Your task to perform on an android device: What's the weather going to be this weekend? Image 0: 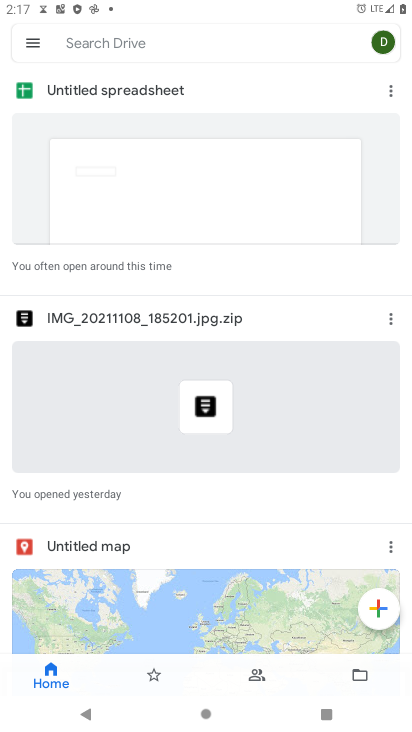
Step 0: press home button
Your task to perform on an android device: What's the weather going to be this weekend? Image 1: 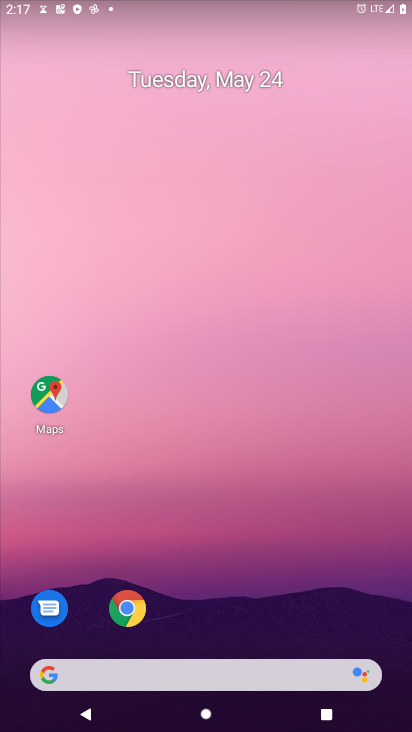
Step 1: drag from (268, 683) to (152, 103)
Your task to perform on an android device: What's the weather going to be this weekend? Image 2: 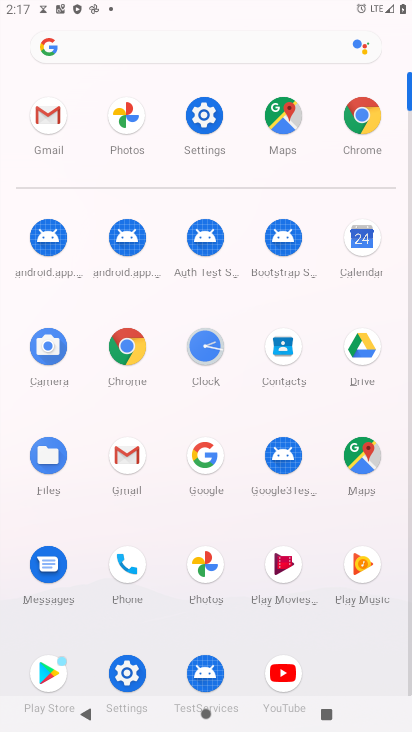
Step 2: click (163, 46)
Your task to perform on an android device: What's the weather going to be this weekend? Image 3: 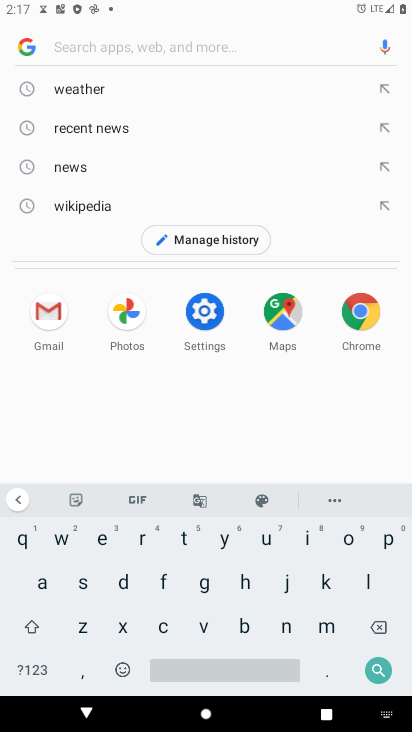
Step 3: click (122, 91)
Your task to perform on an android device: What's the weather going to be this weekend? Image 4: 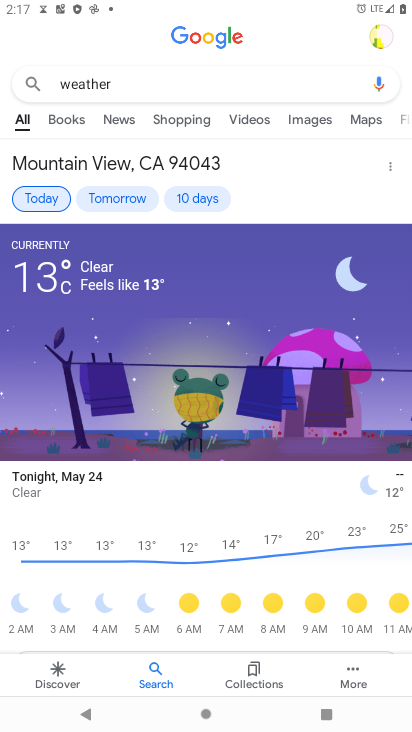
Step 4: click (182, 196)
Your task to perform on an android device: What's the weather going to be this weekend? Image 5: 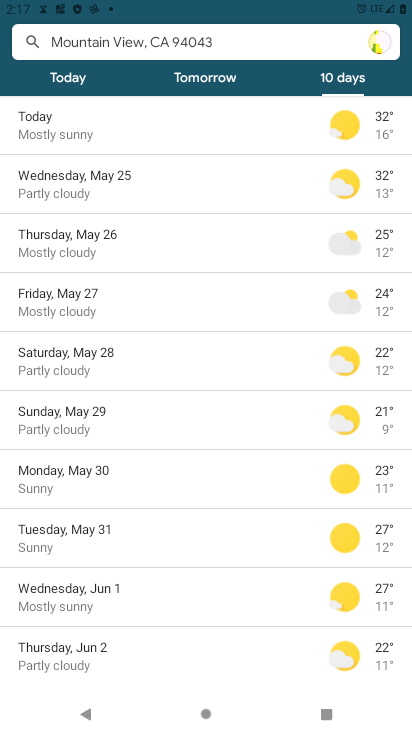
Step 5: task complete